Your task to perform on an android device: turn on the 12-hour format for clock Image 0: 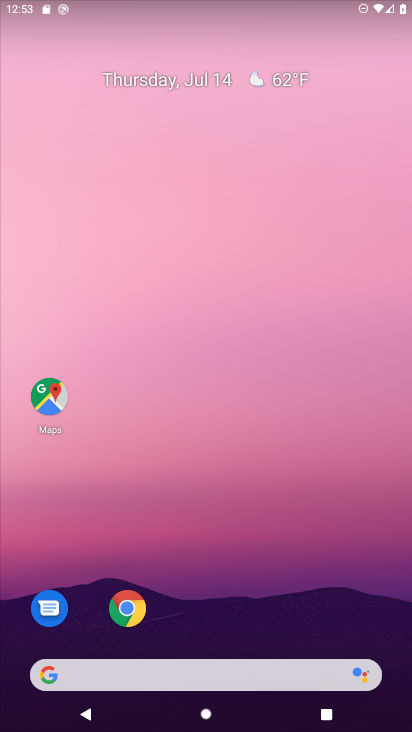
Step 0: drag from (252, 728) to (248, 160)
Your task to perform on an android device: turn on the 12-hour format for clock Image 1: 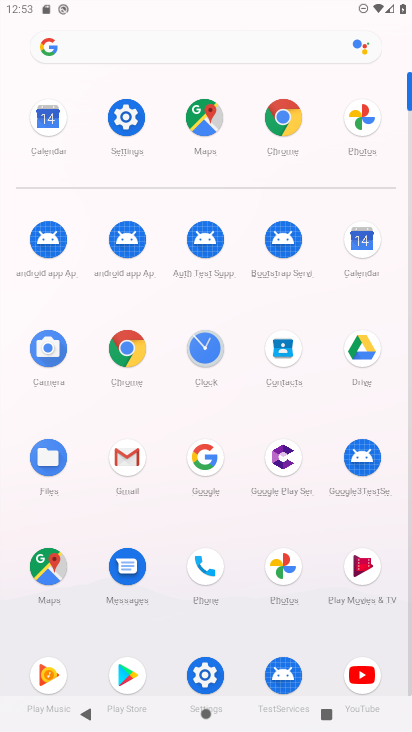
Step 1: click (204, 343)
Your task to perform on an android device: turn on the 12-hour format for clock Image 2: 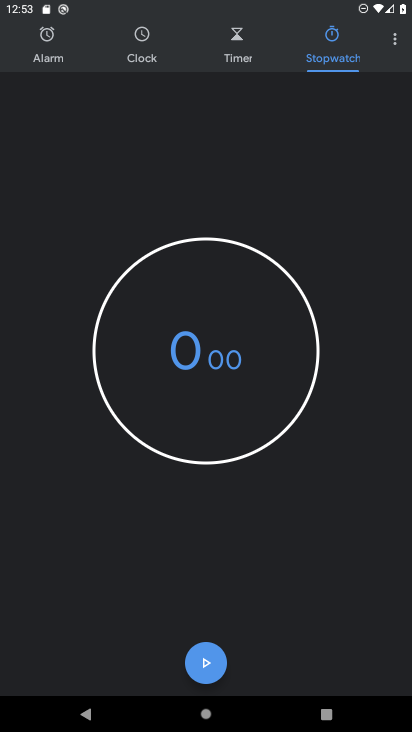
Step 2: click (399, 39)
Your task to perform on an android device: turn on the 12-hour format for clock Image 3: 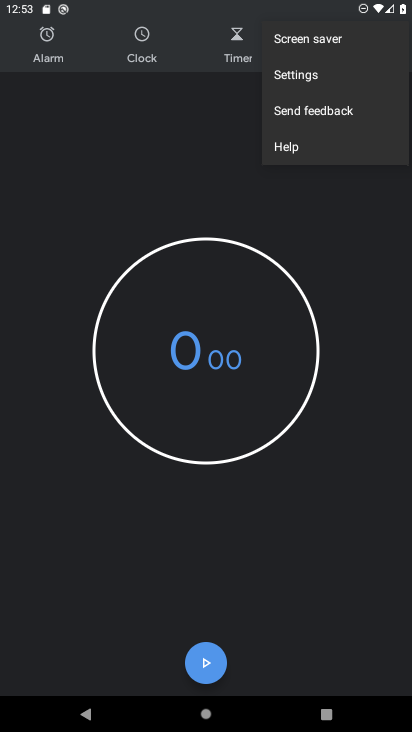
Step 3: click (299, 74)
Your task to perform on an android device: turn on the 12-hour format for clock Image 4: 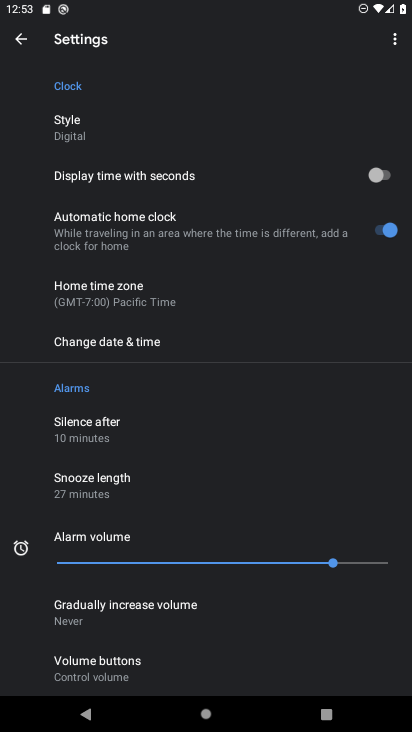
Step 4: click (126, 340)
Your task to perform on an android device: turn on the 12-hour format for clock Image 5: 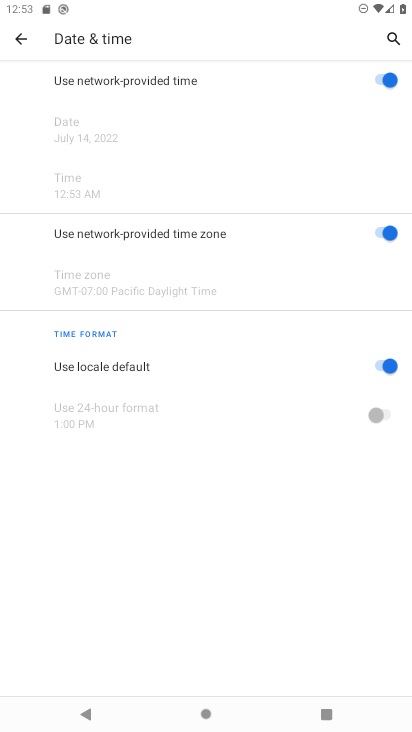
Step 5: task complete